Your task to perform on an android device: open a new tab in the chrome app Image 0: 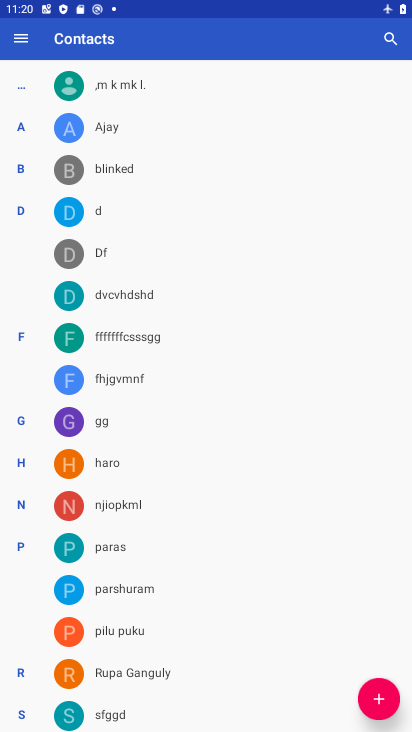
Step 0: press home button
Your task to perform on an android device: open a new tab in the chrome app Image 1: 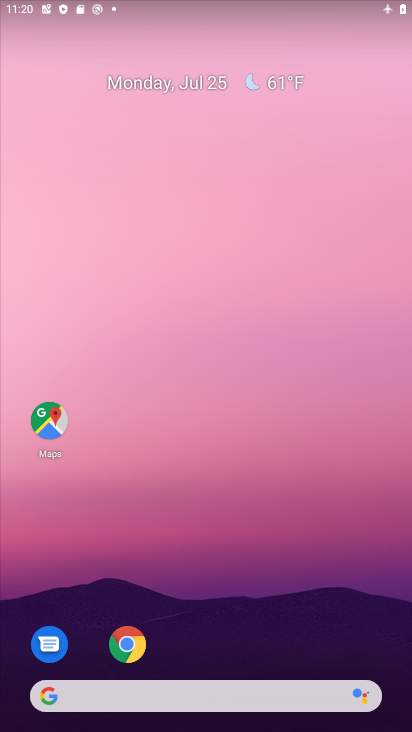
Step 1: click (129, 653)
Your task to perform on an android device: open a new tab in the chrome app Image 2: 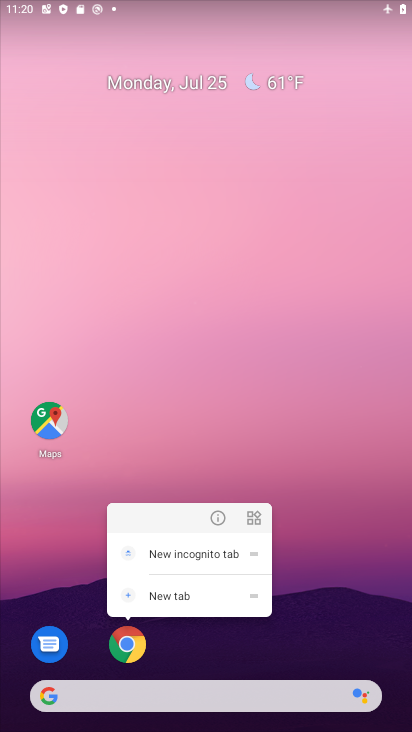
Step 2: click (131, 653)
Your task to perform on an android device: open a new tab in the chrome app Image 3: 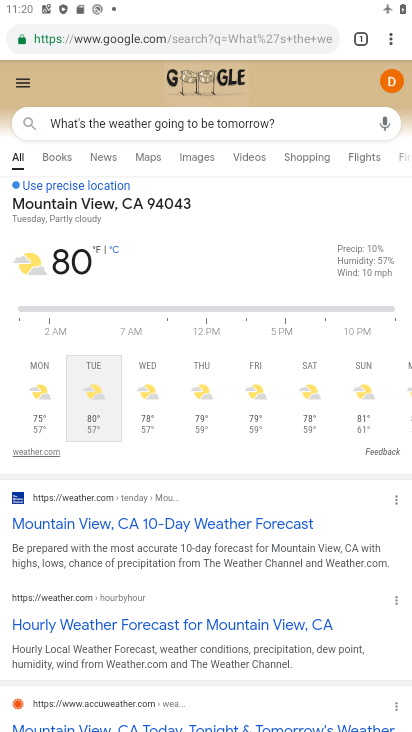
Step 3: click (395, 37)
Your task to perform on an android device: open a new tab in the chrome app Image 4: 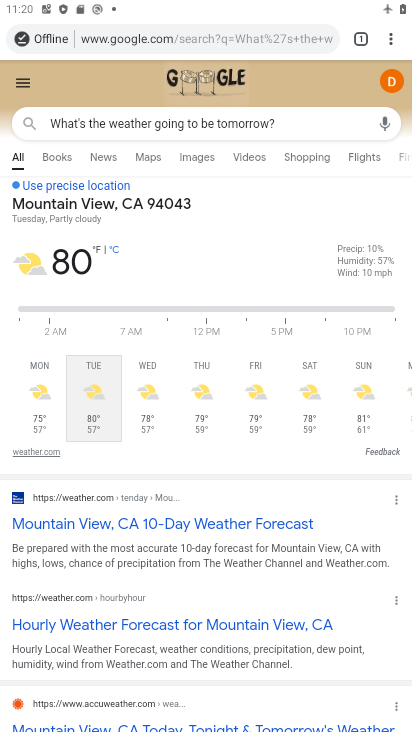
Step 4: click (395, 37)
Your task to perform on an android device: open a new tab in the chrome app Image 5: 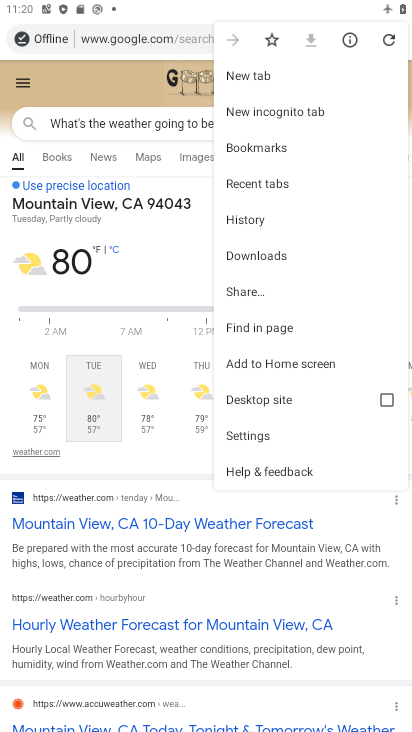
Step 5: click (296, 70)
Your task to perform on an android device: open a new tab in the chrome app Image 6: 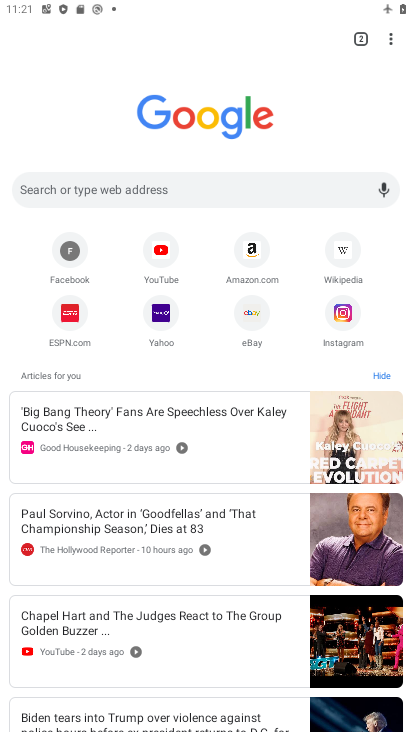
Step 6: task complete